Your task to perform on an android device: turn on airplane mode Image 0: 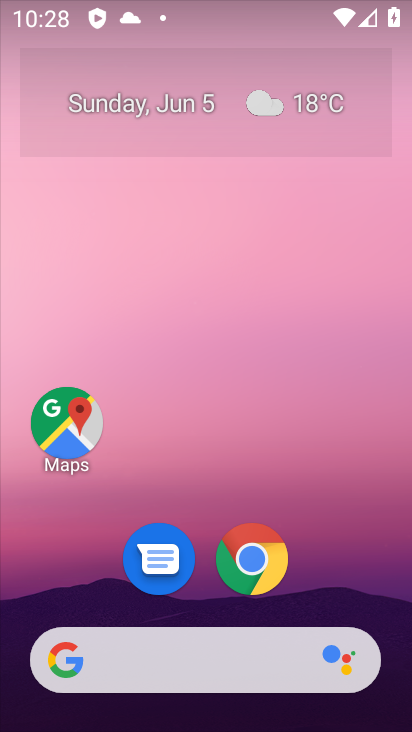
Step 0: drag from (383, 676) to (354, 166)
Your task to perform on an android device: turn on airplane mode Image 1: 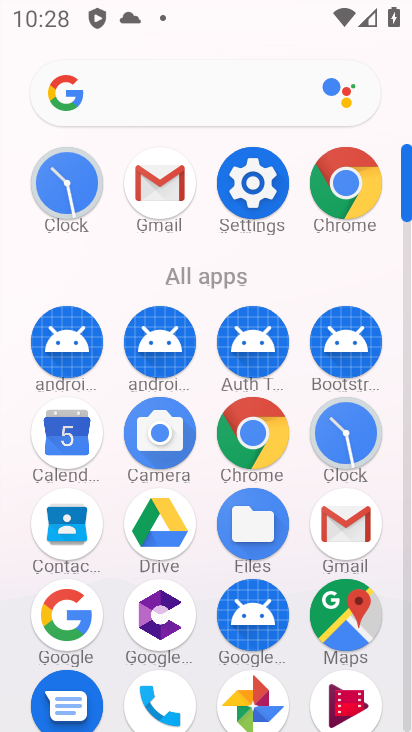
Step 1: click (252, 177)
Your task to perform on an android device: turn on airplane mode Image 2: 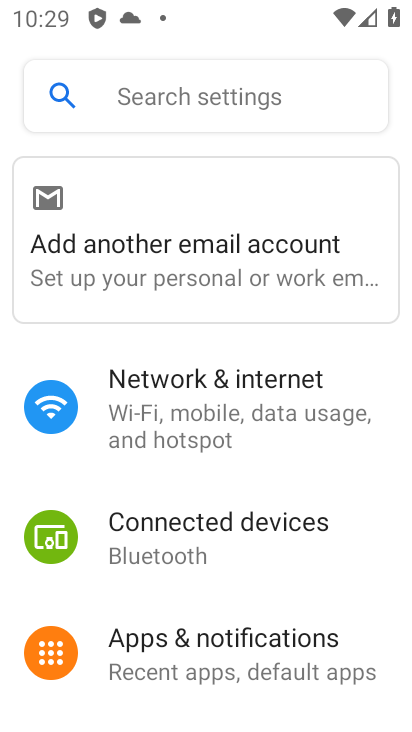
Step 2: click (218, 389)
Your task to perform on an android device: turn on airplane mode Image 3: 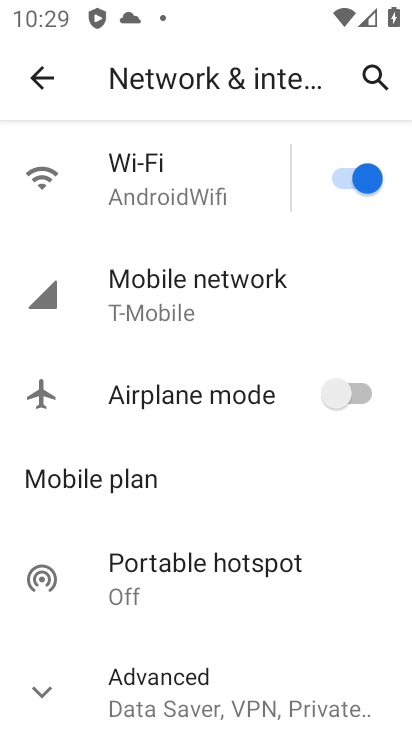
Step 3: click (360, 387)
Your task to perform on an android device: turn on airplane mode Image 4: 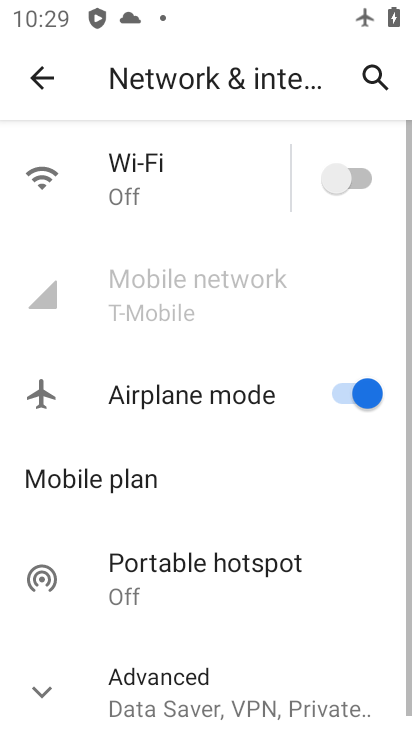
Step 4: task complete